Your task to perform on an android device: Open eBay Image 0: 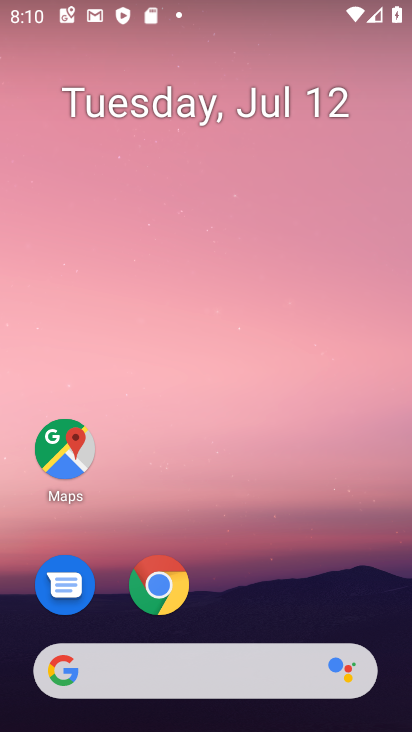
Step 0: drag from (309, 580) to (296, 327)
Your task to perform on an android device: Open eBay Image 1: 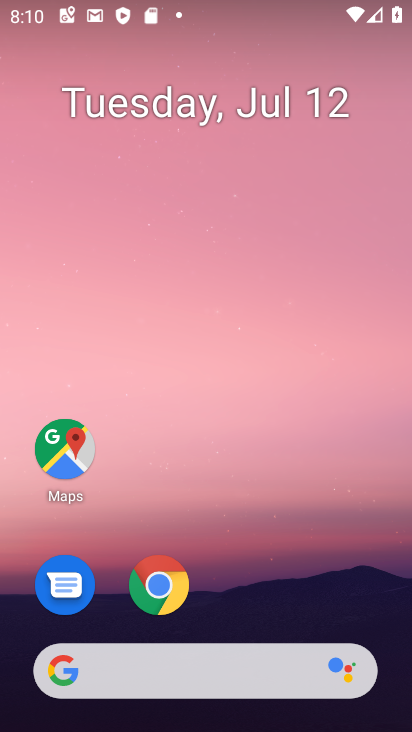
Step 1: click (154, 676)
Your task to perform on an android device: Open eBay Image 2: 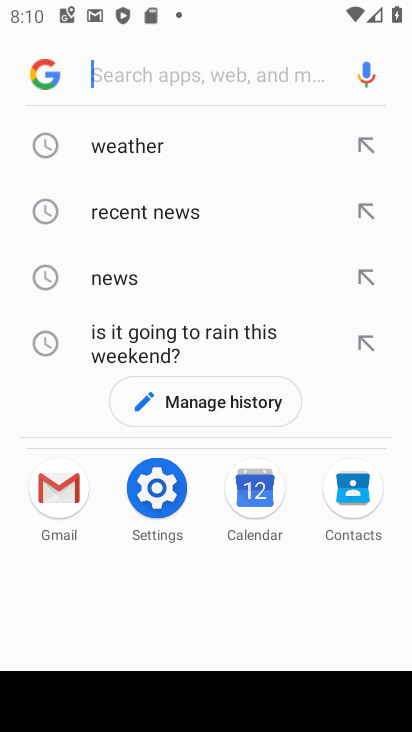
Step 2: type "ebay"
Your task to perform on an android device: Open eBay Image 3: 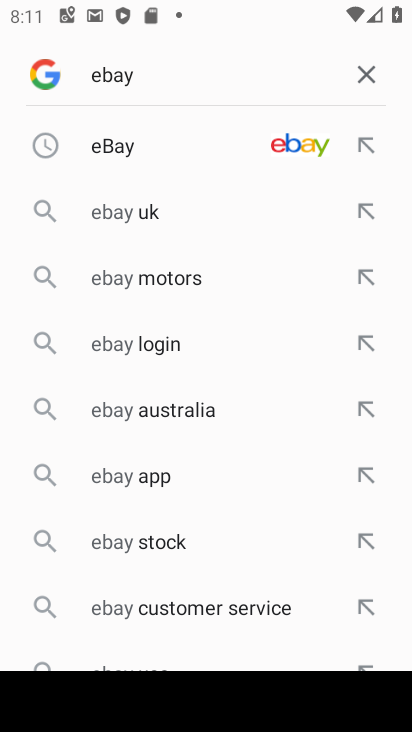
Step 3: click (303, 148)
Your task to perform on an android device: Open eBay Image 4: 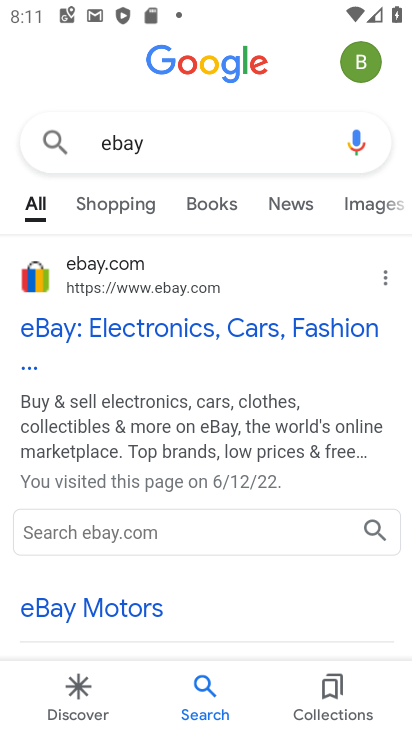
Step 4: click (71, 325)
Your task to perform on an android device: Open eBay Image 5: 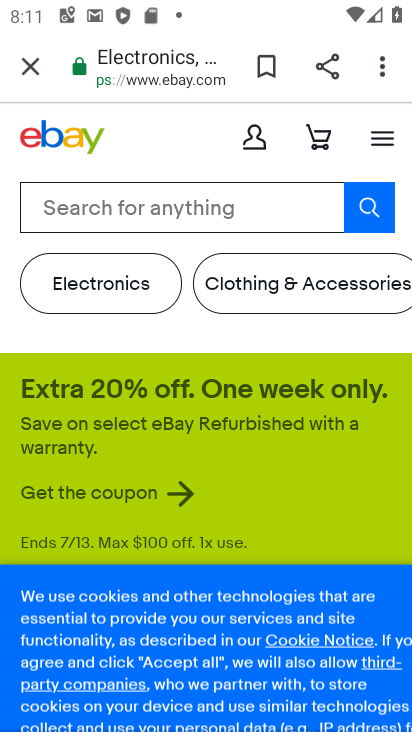
Step 5: task complete